Your task to perform on an android device: Open Maps and search for coffee Image 0: 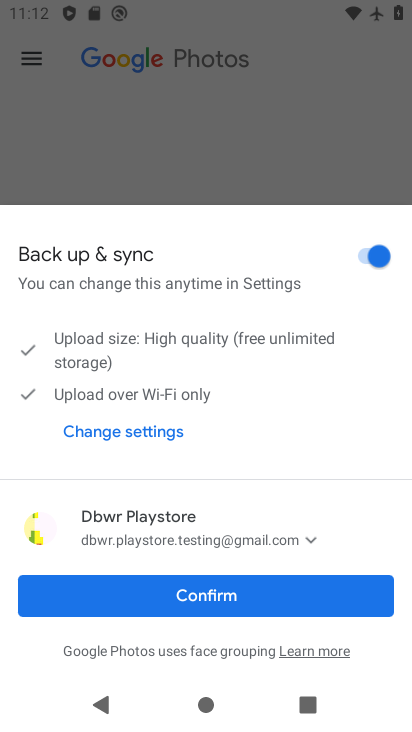
Step 0: press home button
Your task to perform on an android device: Open Maps and search for coffee Image 1: 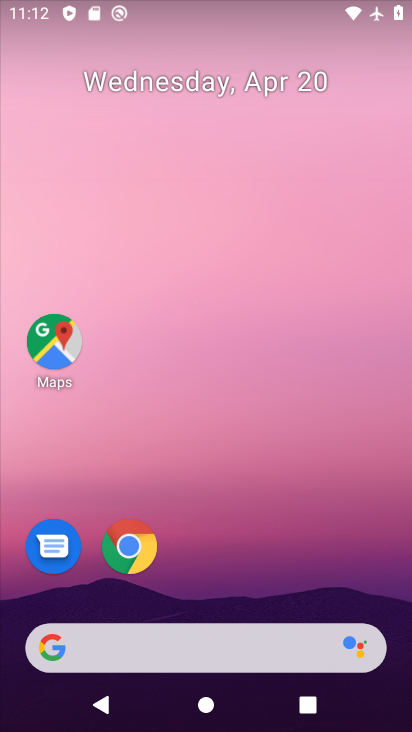
Step 1: drag from (162, 613) to (258, 142)
Your task to perform on an android device: Open Maps and search for coffee Image 2: 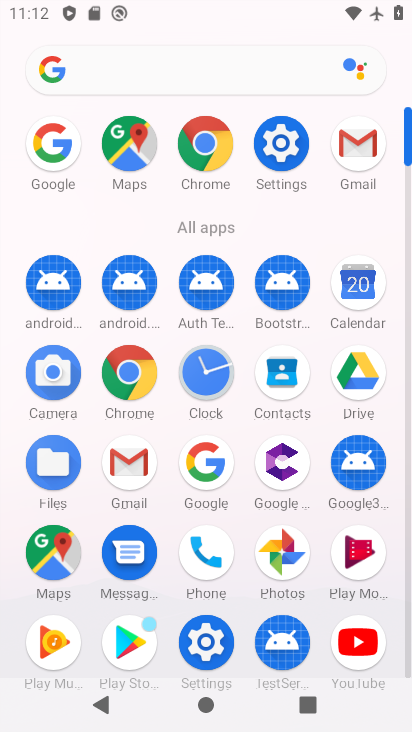
Step 2: click (62, 561)
Your task to perform on an android device: Open Maps and search for coffee Image 3: 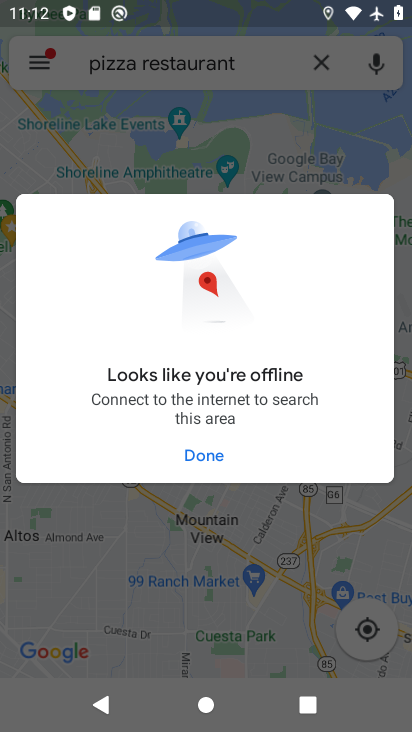
Step 3: click (206, 458)
Your task to perform on an android device: Open Maps and search for coffee Image 4: 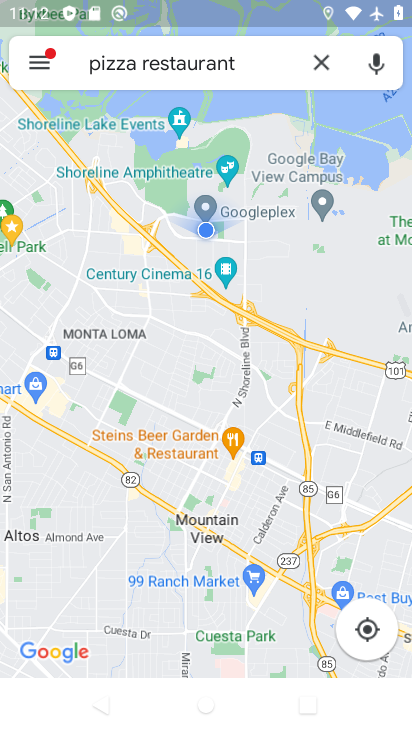
Step 4: click (322, 59)
Your task to perform on an android device: Open Maps and search for coffee Image 5: 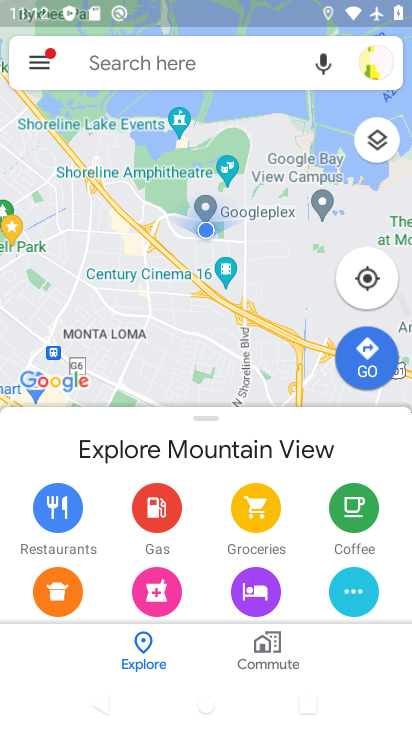
Step 5: click (220, 74)
Your task to perform on an android device: Open Maps and search for coffee Image 6: 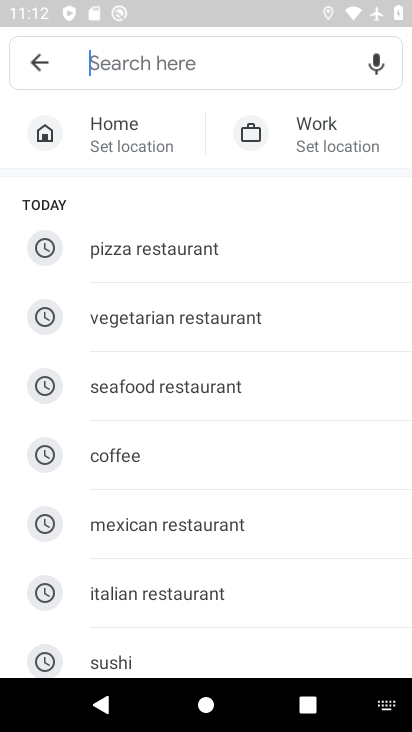
Step 6: click (109, 454)
Your task to perform on an android device: Open Maps and search for coffee Image 7: 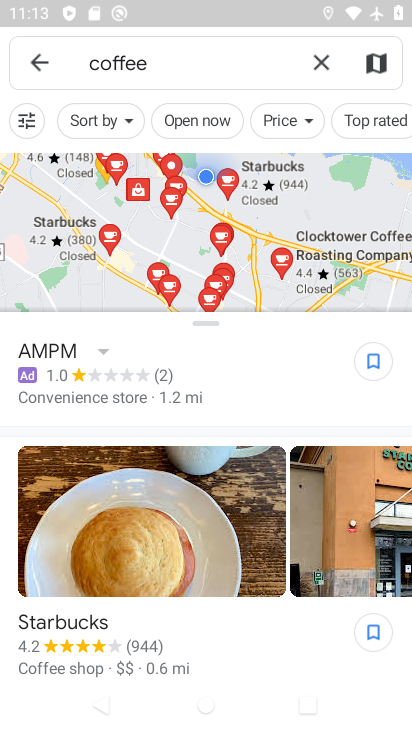
Step 7: task complete